Your task to perform on an android device: Is it going to rain tomorrow? Image 0: 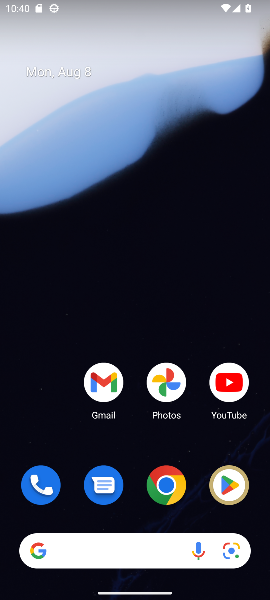
Step 0: click (164, 486)
Your task to perform on an android device: Is it going to rain tomorrow? Image 1: 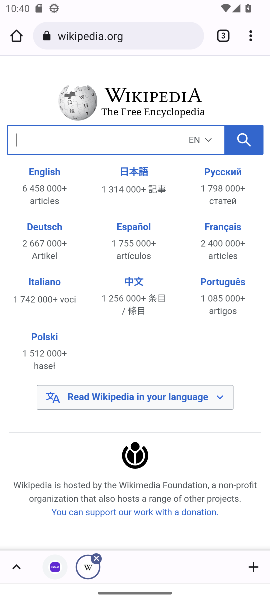
Step 1: click (118, 31)
Your task to perform on an android device: Is it going to rain tomorrow? Image 2: 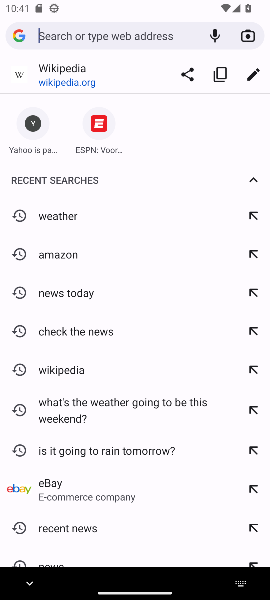
Step 2: type "Is it going to rain tomorrow?"
Your task to perform on an android device: Is it going to rain tomorrow? Image 3: 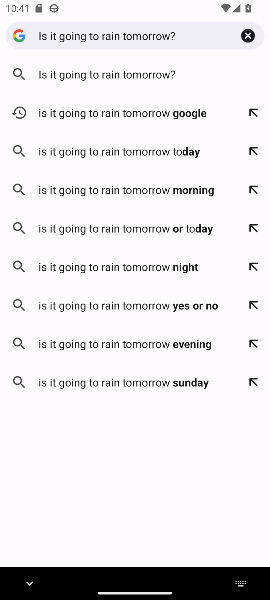
Step 3: click (81, 68)
Your task to perform on an android device: Is it going to rain tomorrow? Image 4: 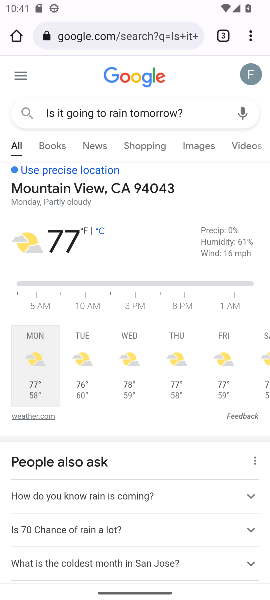
Step 4: task complete